Your task to perform on an android device: Open location settings Image 0: 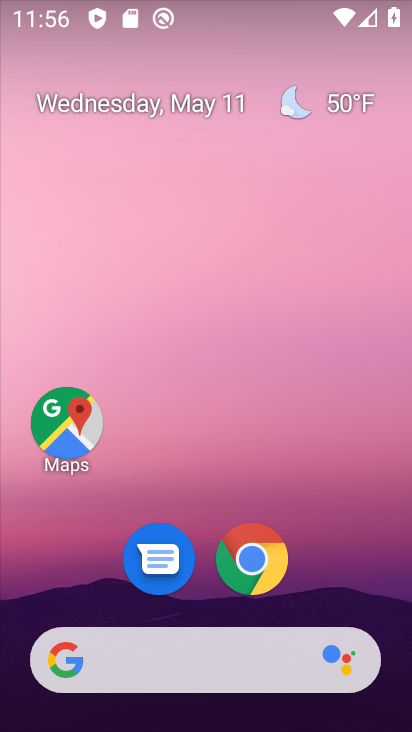
Step 0: drag from (326, 587) to (250, 67)
Your task to perform on an android device: Open location settings Image 1: 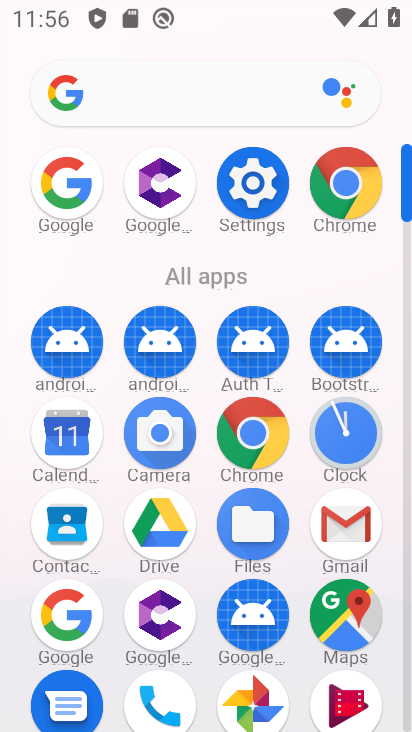
Step 1: click (249, 219)
Your task to perform on an android device: Open location settings Image 2: 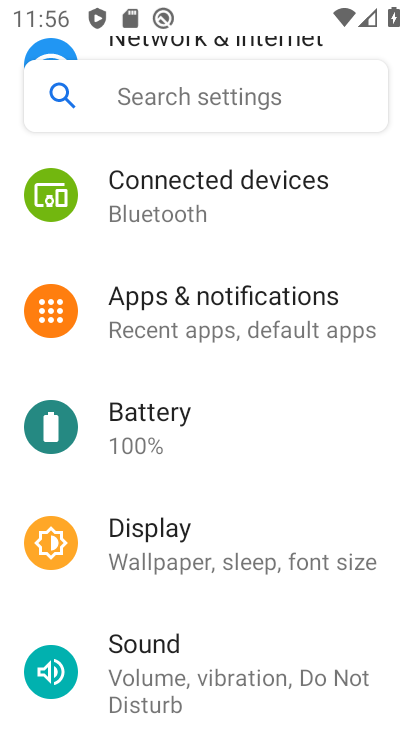
Step 2: drag from (192, 681) to (154, 263)
Your task to perform on an android device: Open location settings Image 3: 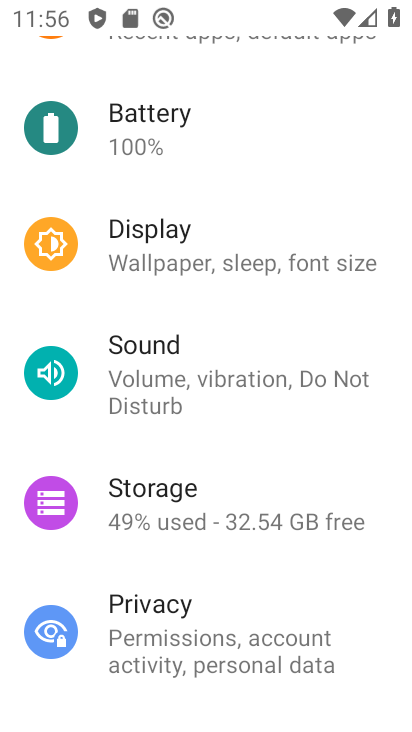
Step 3: drag from (176, 634) to (227, 201)
Your task to perform on an android device: Open location settings Image 4: 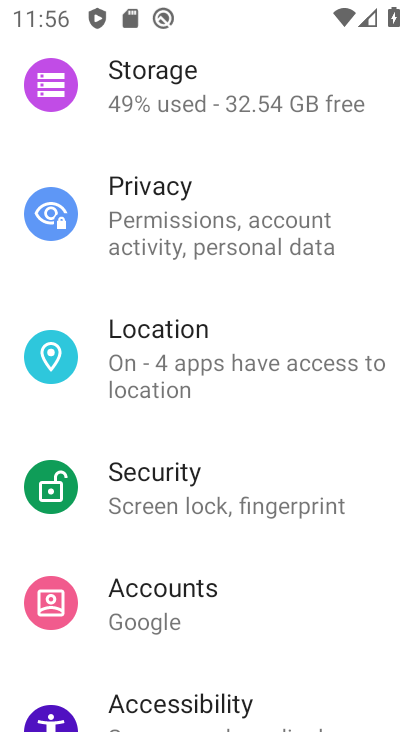
Step 4: click (188, 385)
Your task to perform on an android device: Open location settings Image 5: 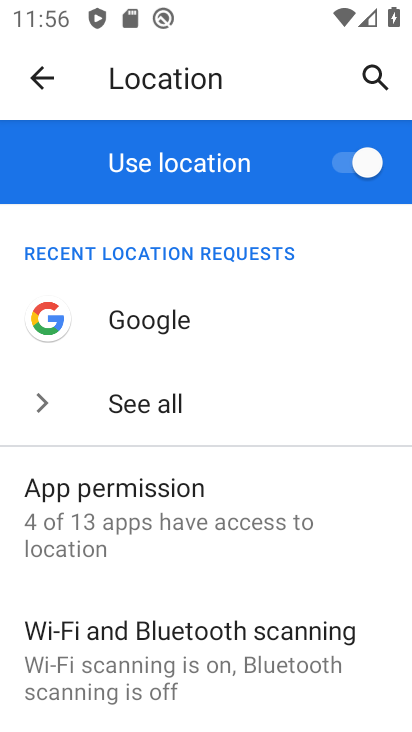
Step 5: task complete